Your task to perform on an android device: turn off data saver in the chrome app Image 0: 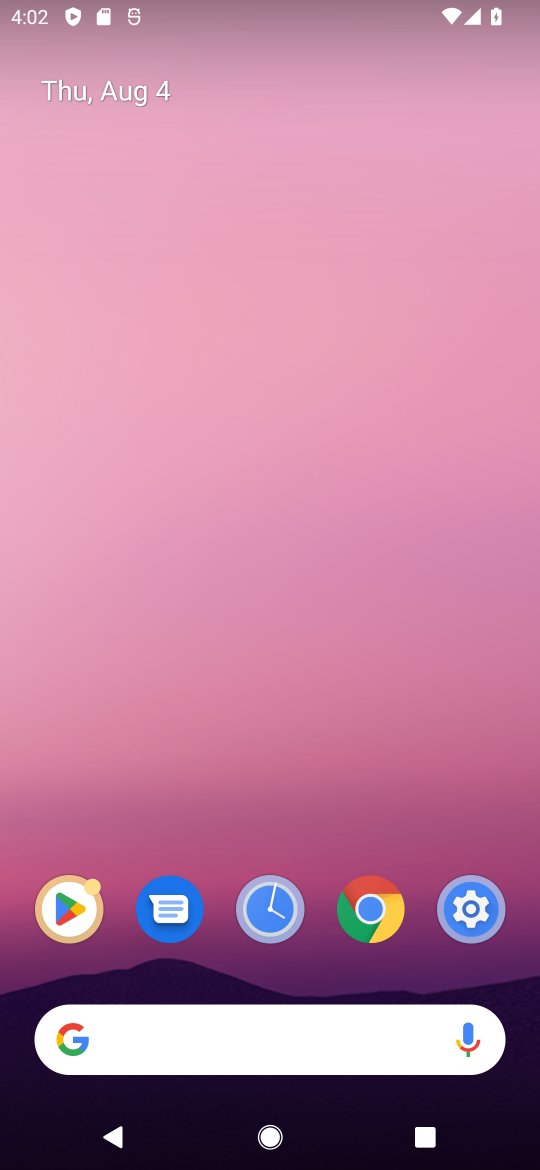
Step 0: click (366, 904)
Your task to perform on an android device: turn off data saver in the chrome app Image 1: 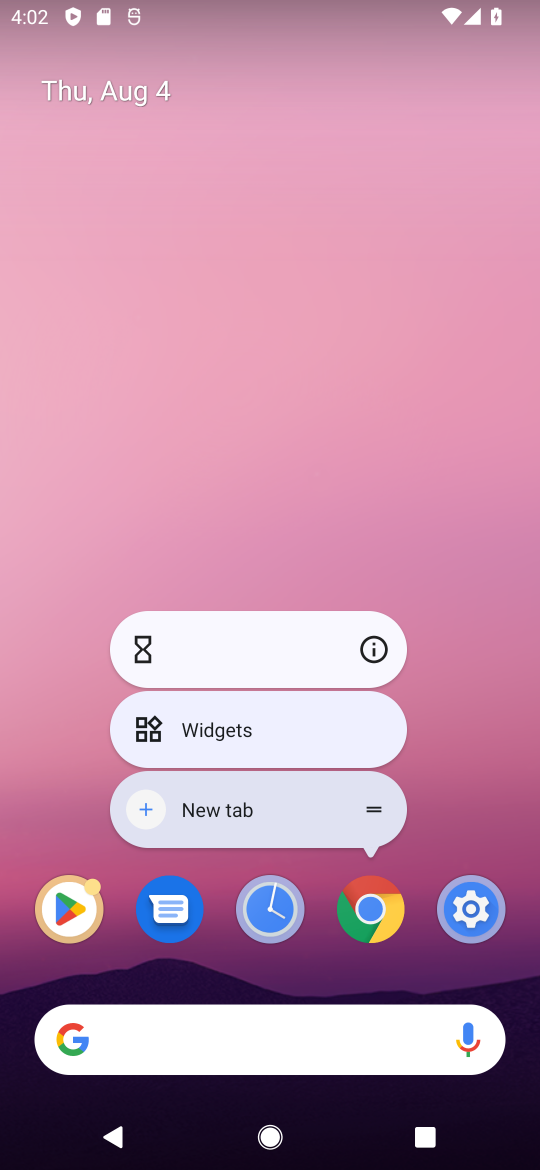
Step 1: click (367, 902)
Your task to perform on an android device: turn off data saver in the chrome app Image 2: 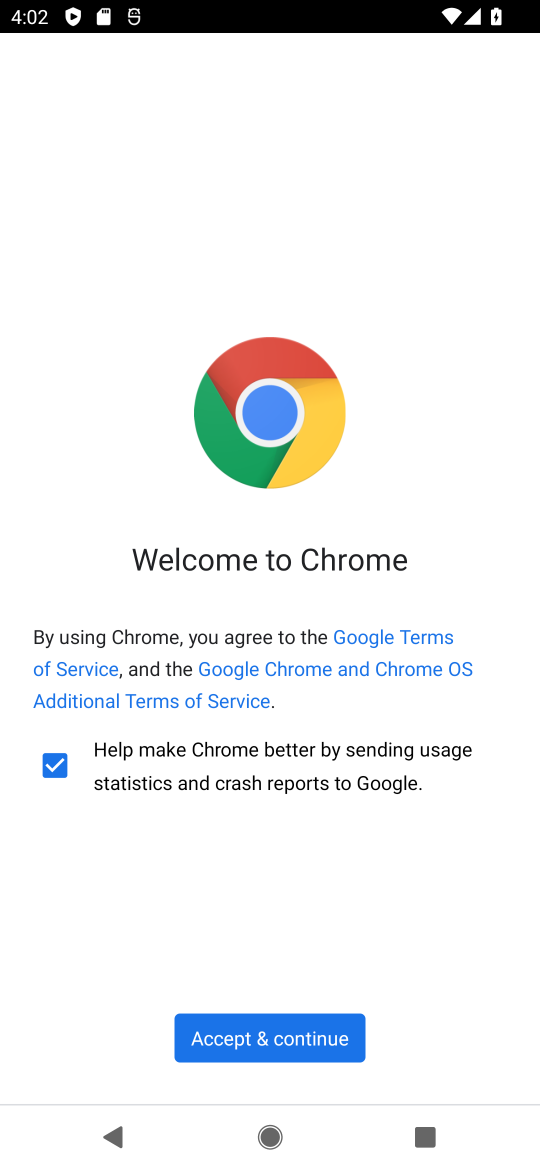
Step 2: click (269, 1032)
Your task to perform on an android device: turn off data saver in the chrome app Image 3: 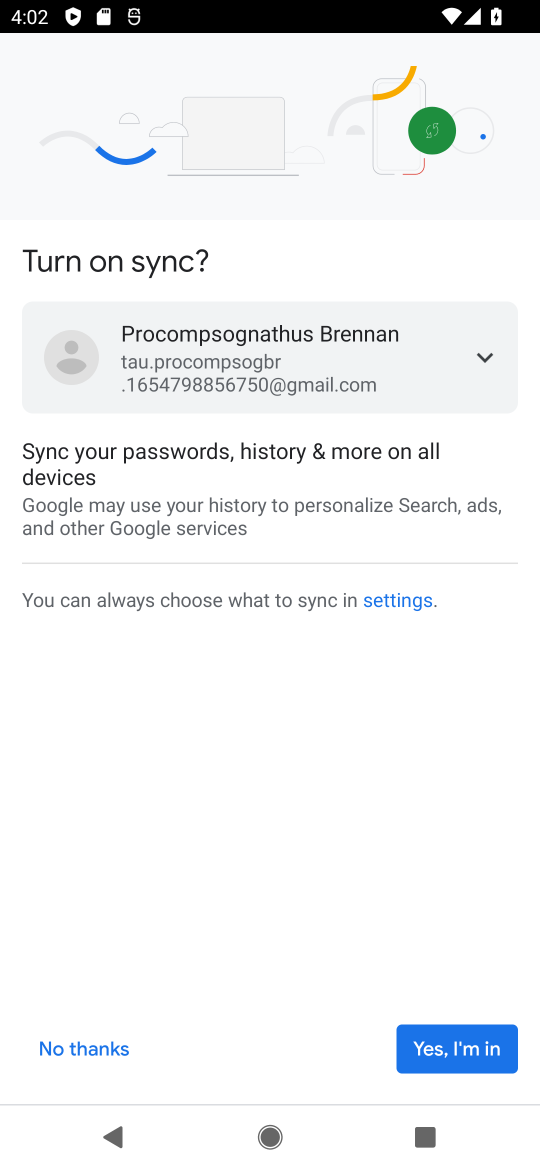
Step 3: click (438, 1046)
Your task to perform on an android device: turn off data saver in the chrome app Image 4: 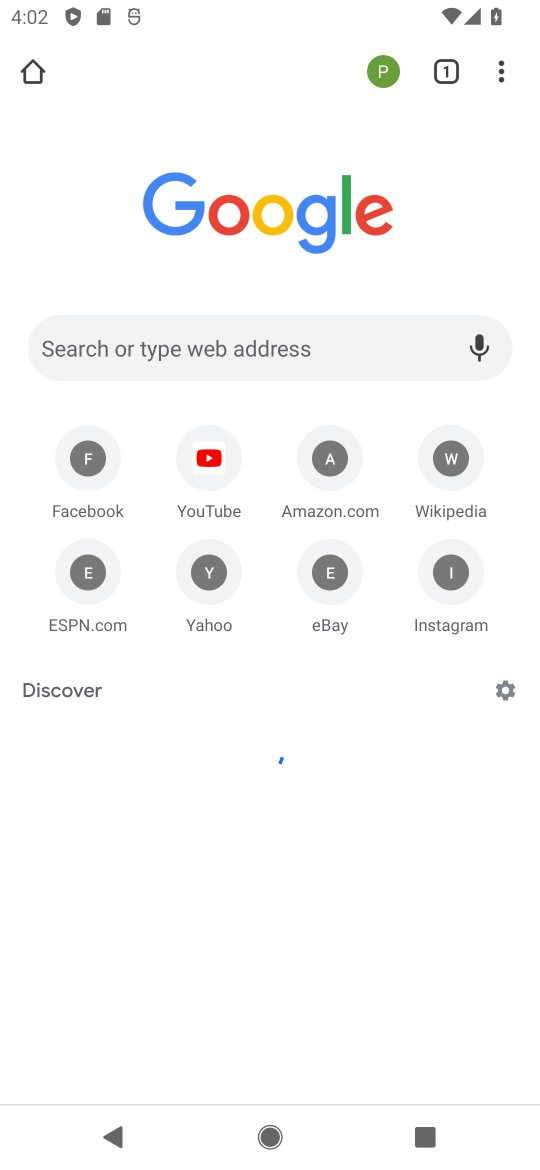
Step 4: drag from (497, 75) to (280, 639)
Your task to perform on an android device: turn off data saver in the chrome app Image 5: 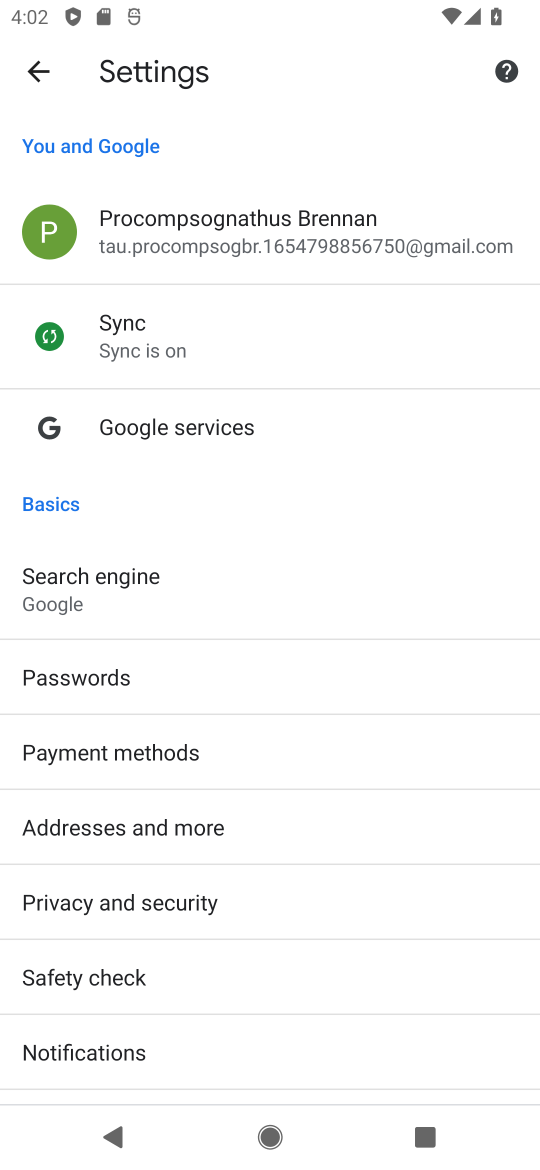
Step 5: drag from (175, 1030) to (195, 523)
Your task to perform on an android device: turn off data saver in the chrome app Image 6: 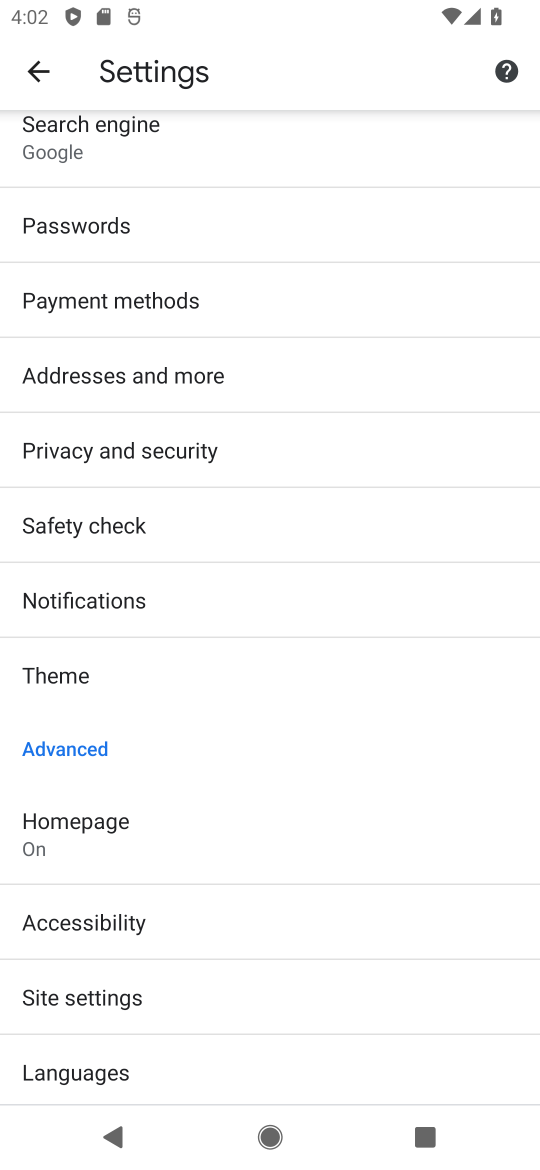
Step 6: drag from (187, 910) to (206, 615)
Your task to perform on an android device: turn off data saver in the chrome app Image 7: 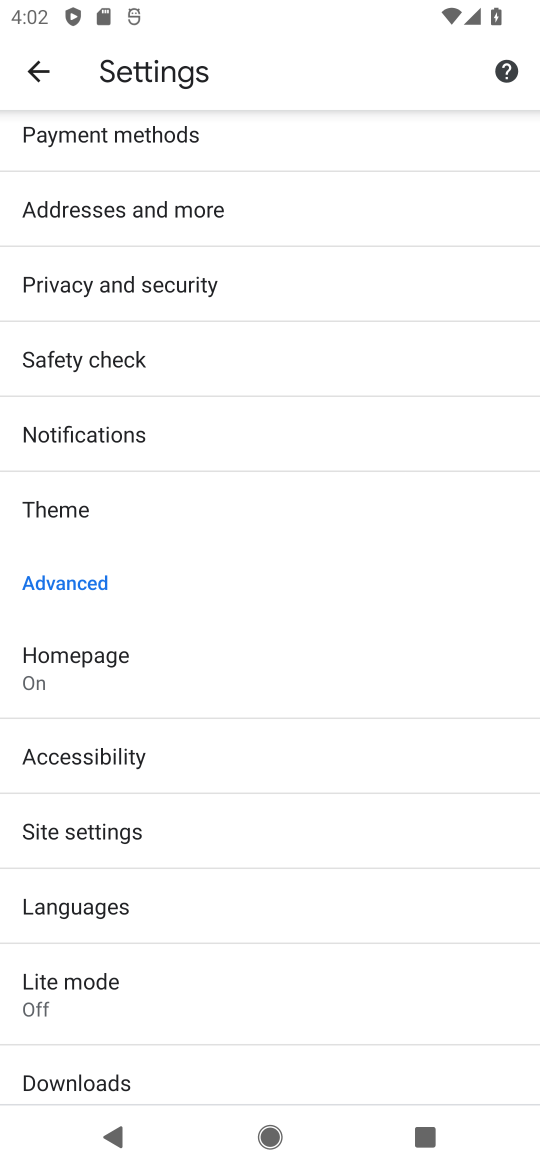
Step 7: click (102, 989)
Your task to perform on an android device: turn off data saver in the chrome app Image 8: 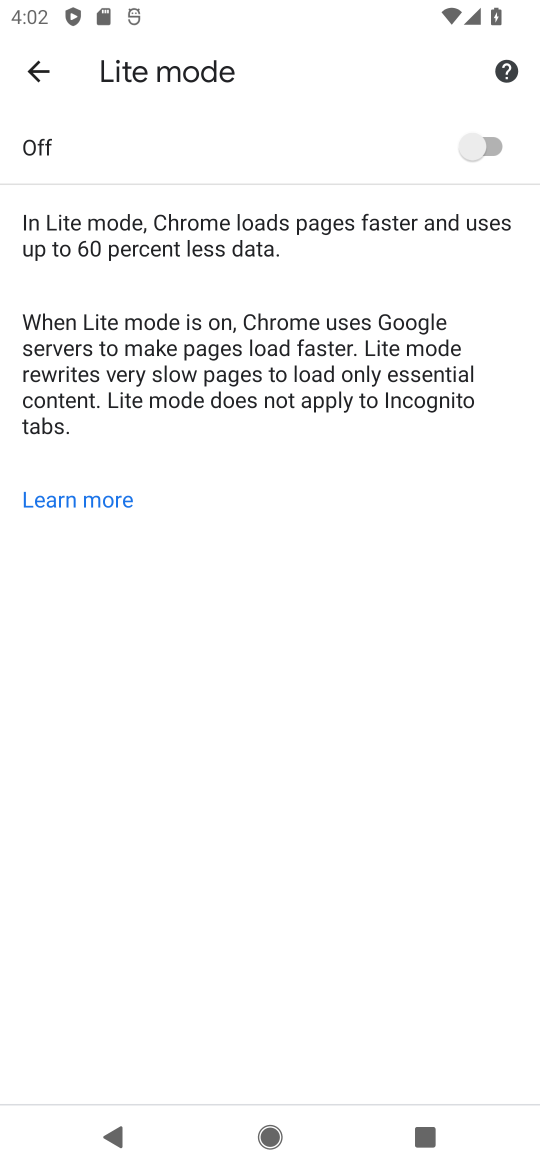
Step 8: task complete